Your task to perform on an android device: turn off picture-in-picture Image 0: 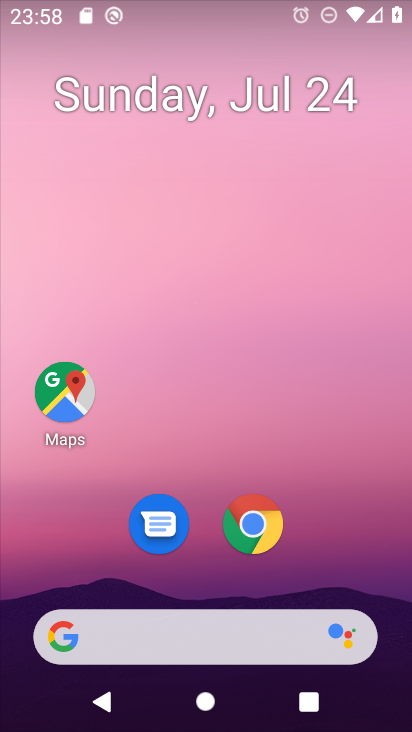
Step 0: press home button
Your task to perform on an android device: turn off picture-in-picture Image 1: 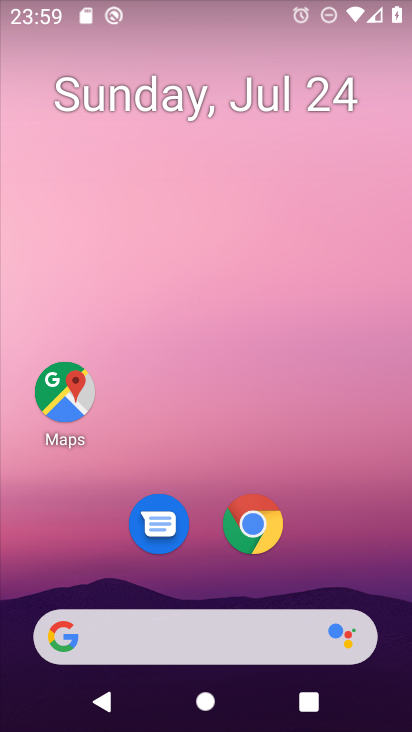
Step 1: click (247, 529)
Your task to perform on an android device: turn off picture-in-picture Image 2: 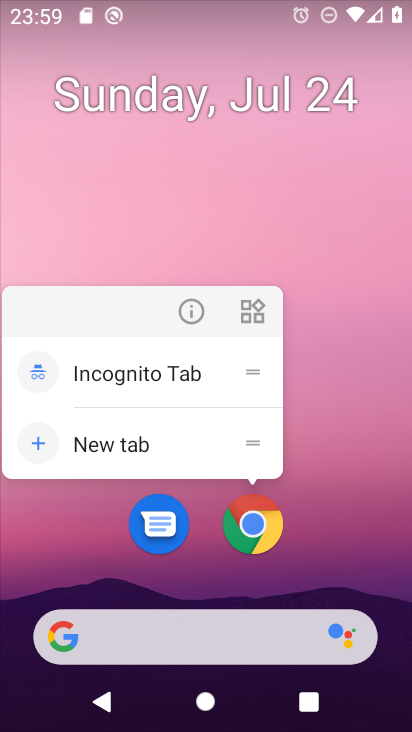
Step 2: click (196, 309)
Your task to perform on an android device: turn off picture-in-picture Image 3: 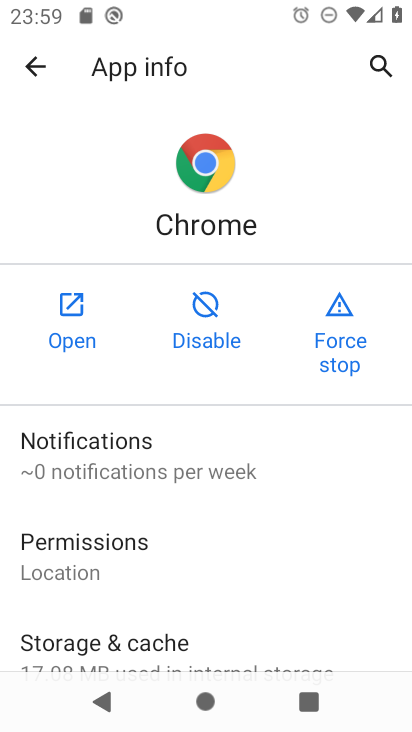
Step 3: drag from (255, 613) to (328, 273)
Your task to perform on an android device: turn off picture-in-picture Image 4: 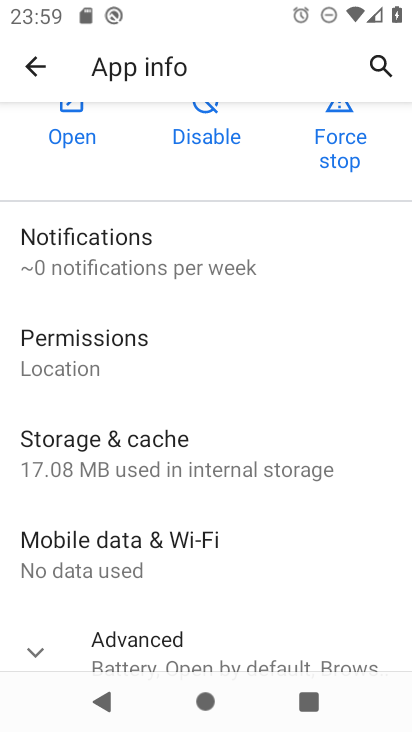
Step 4: drag from (274, 616) to (357, 102)
Your task to perform on an android device: turn off picture-in-picture Image 5: 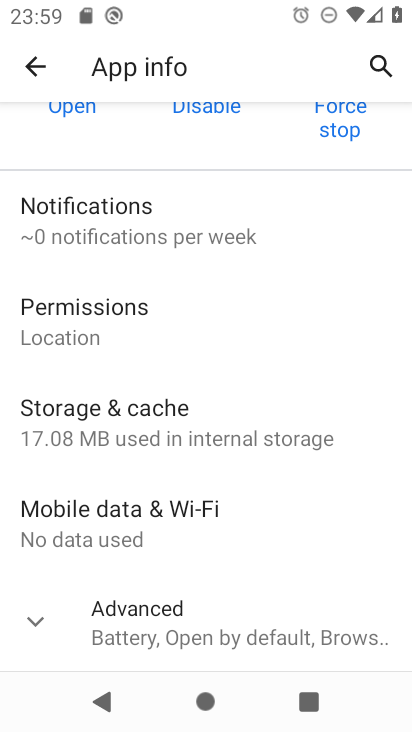
Step 5: click (139, 624)
Your task to perform on an android device: turn off picture-in-picture Image 6: 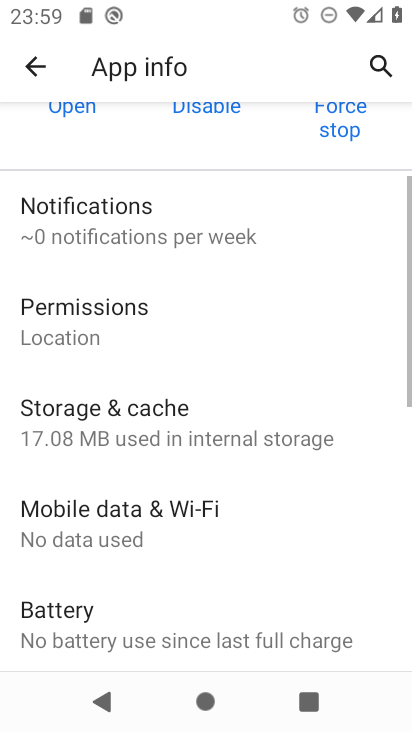
Step 6: drag from (238, 573) to (345, 188)
Your task to perform on an android device: turn off picture-in-picture Image 7: 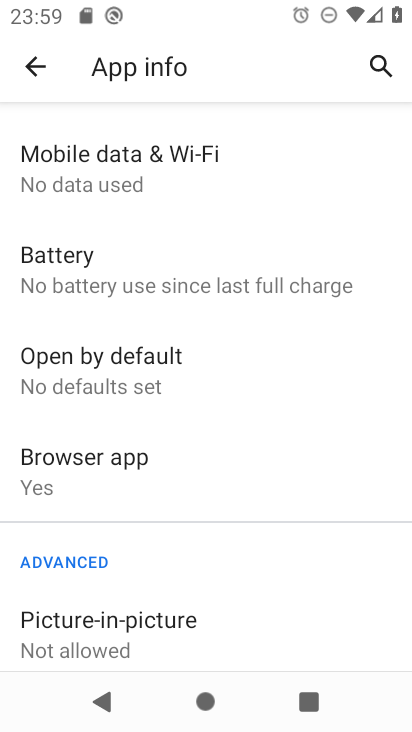
Step 7: drag from (233, 555) to (355, 115)
Your task to perform on an android device: turn off picture-in-picture Image 8: 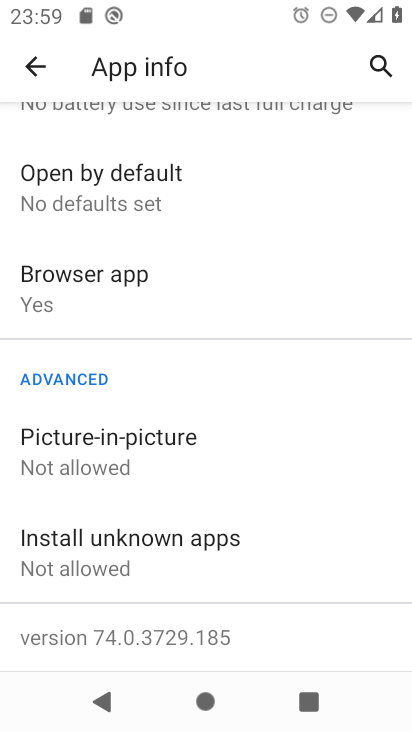
Step 8: click (160, 451)
Your task to perform on an android device: turn off picture-in-picture Image 9: 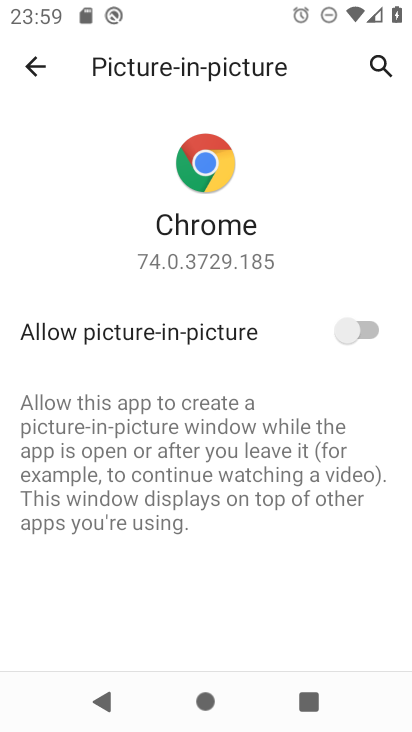
Step 9: task complete